Your task to perform on an android device: Open Google Chrome and click the shortcut for Amazon.com Image 0: 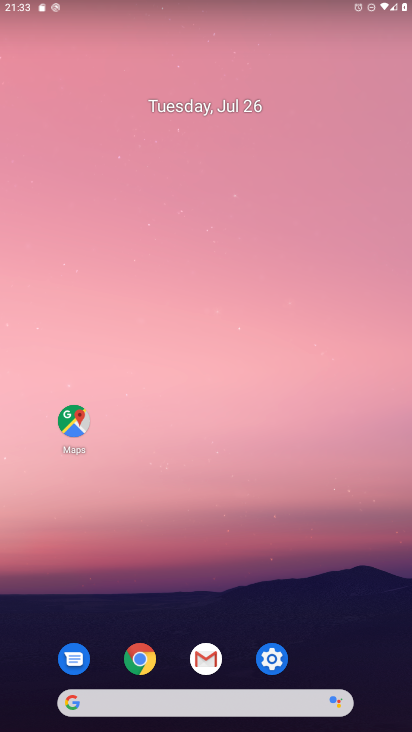
Step 0: click (126, 662)
Your task to perform on an android device: Open Google Chrome and click the shortcut for Amazon.com Image 1: 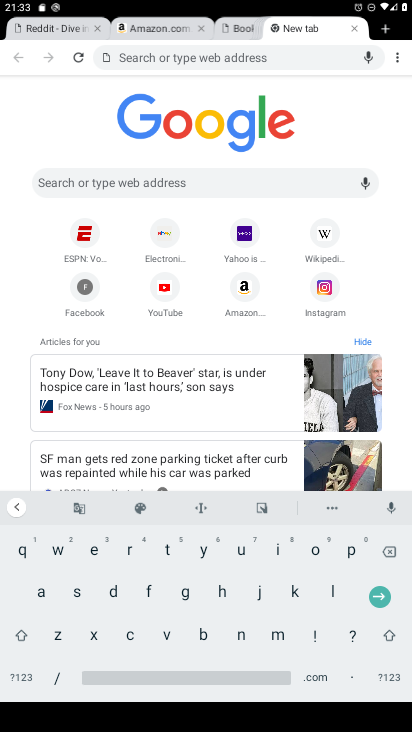
Step 1: click (240, 295)
Your task to perform on an android device: Open Google Chrome and click the shortcut for Amazon.com Image 2: 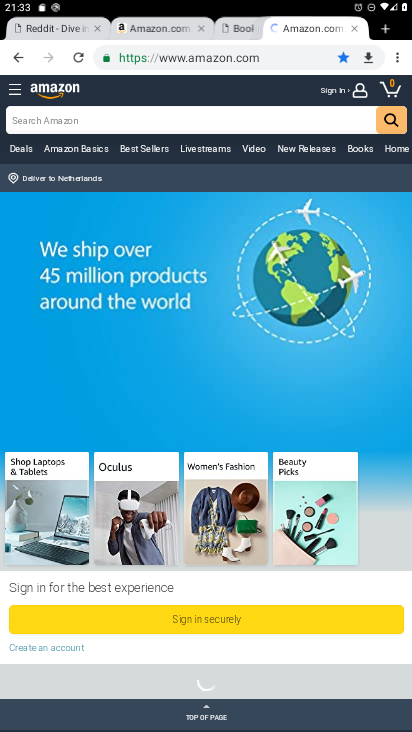
Step 2: click (403, 65)
Your task to perform on an android device: Open Google Chrome and click the shortcut for Amazon.com Image 3: 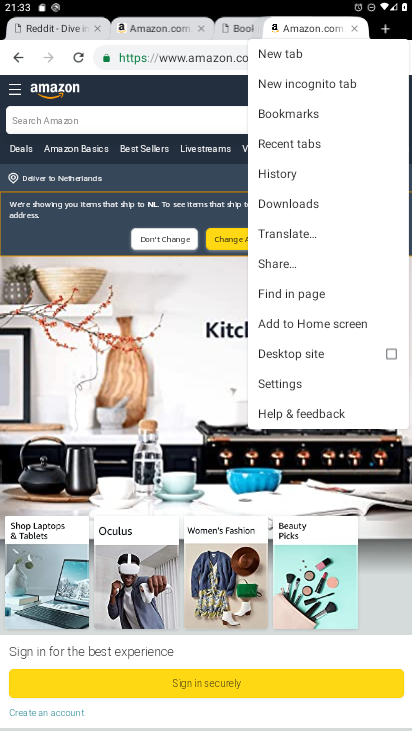
Step 3: click (298, 326)
Your task to perform on an android device: Open Google Chrome and click the shortcut for Amazon.com Image 4: 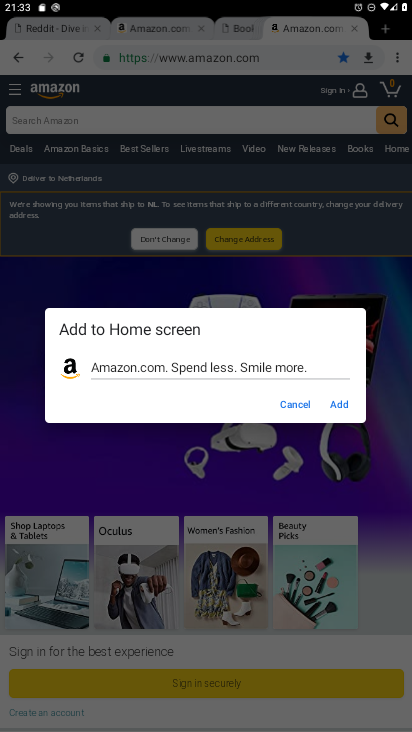
Step 4: click (340, 399)
Your task to perform on an android device: Open Google Chrome and click the shortcut for Amazon.com Image 5: 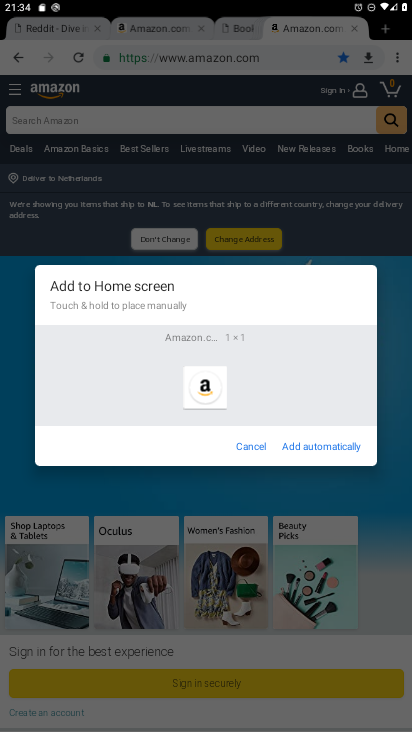
Step 5: task complete